Your task to perform on an android device: turn on airplane mode Image 0: 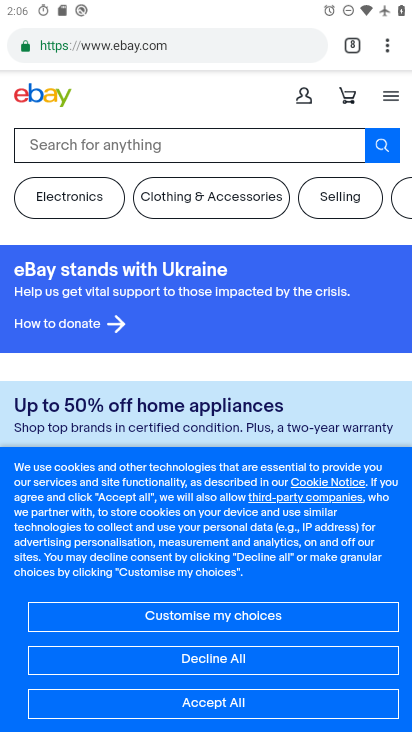
Step 0: press home button
Your task to perform on an android device: turn on airplane mode Image 1: 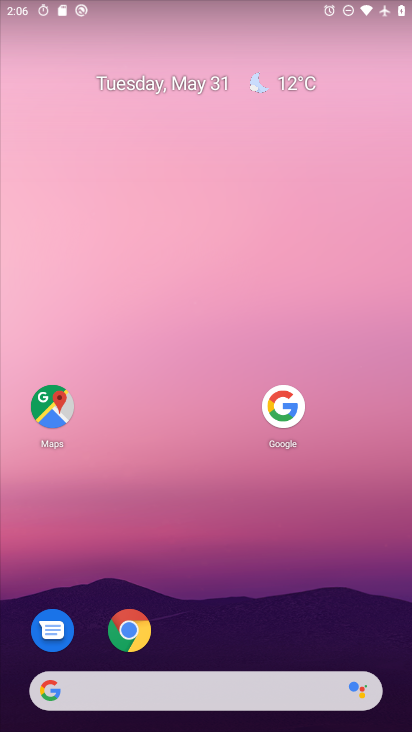
Step 1: drag from (186, 693) to (253, 153)
Your task to perform on an android device: turn on airplane mode Image 2: 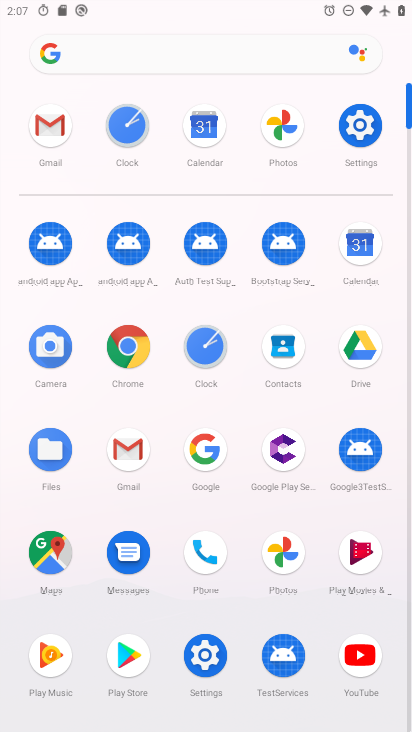
Step 2: click (346, 129)
Your task to perform on an android device: turn on airplane mode Image 3: 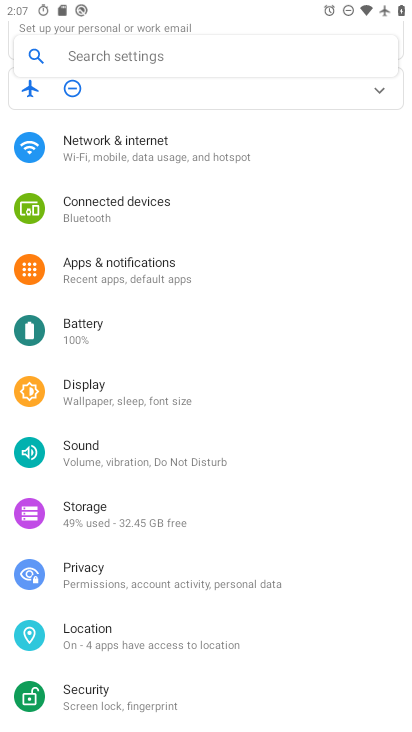
Step 3: click (165, 152)
Your task to perform on an android device: turn on airplane mode Image 4: 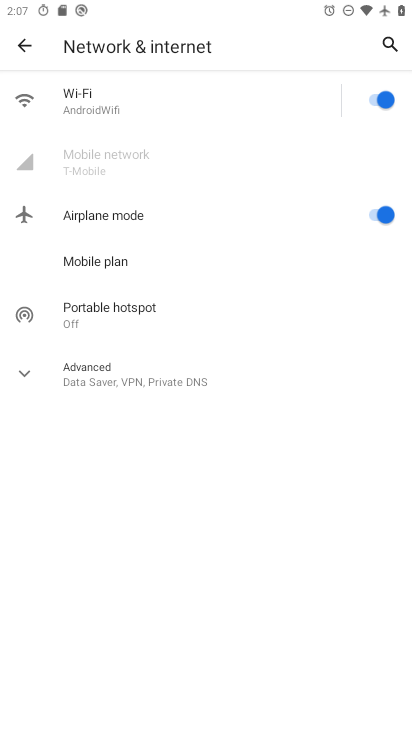
Step 4: task complete